Your task to perform on an android device: Go to privacy settings Image 0: 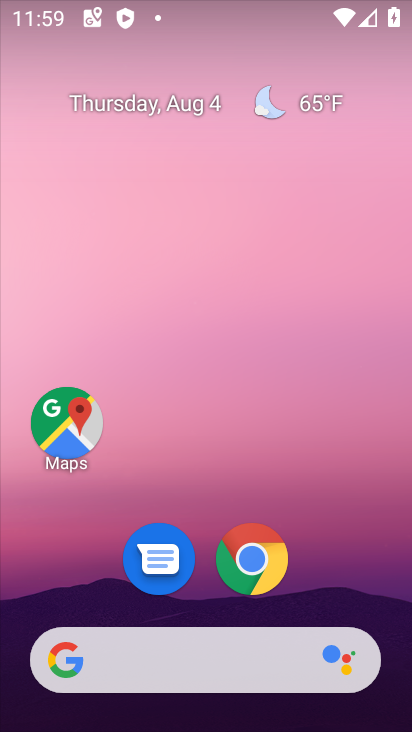
Step 0: drag from (121, 640) to (222, 9)
Your task to perform on an android device: Go to privacy settings Image 1: 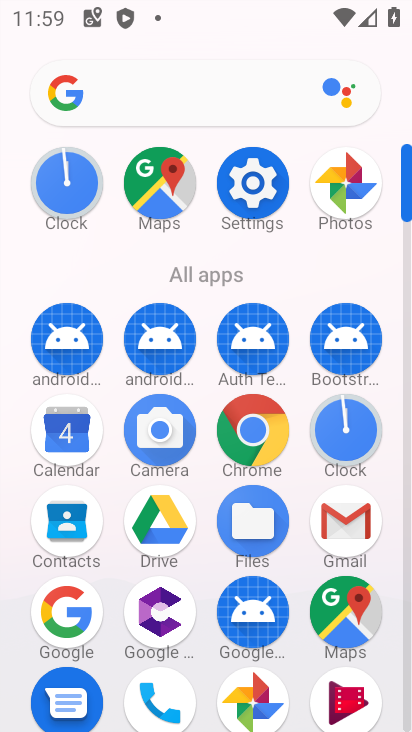
Step 1: click (236, 200)
Your task to perform on an android device: Go to privacy settings Image 2: 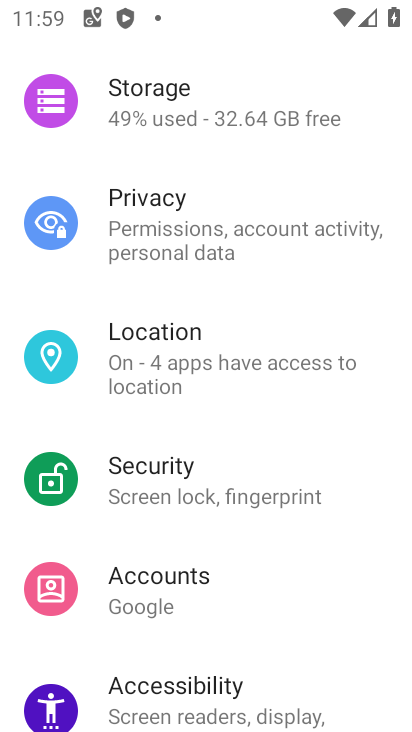
Step 2: click (234, 220)
Your task to perform on an android device: Go to privacy settings Image 3: 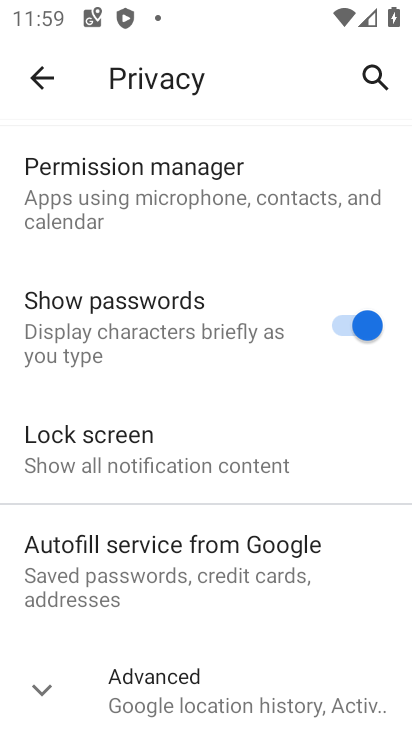
Step 3: task complete